Your task to perform on an android device: Open Amazon Image 0: 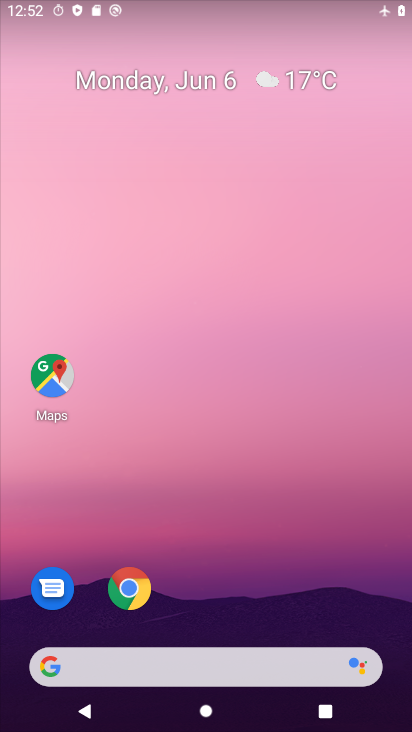
Step 0: click (124, 584)
Your task to perform on an android device: Open Amazon Image 1: 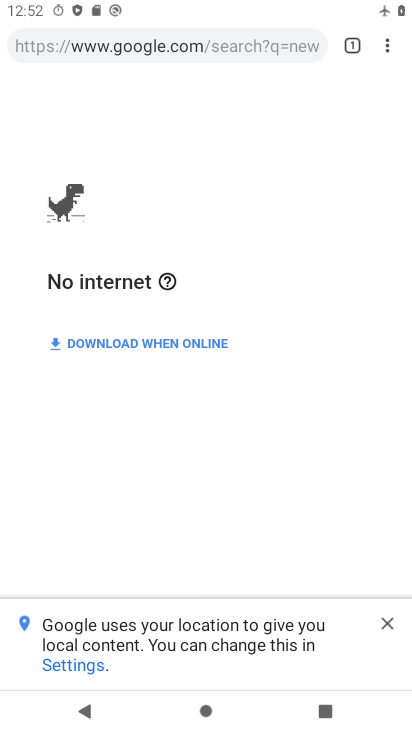
Step 1: click (195, 53)
Your task to perform on an android device: Open Amazon Image 2: 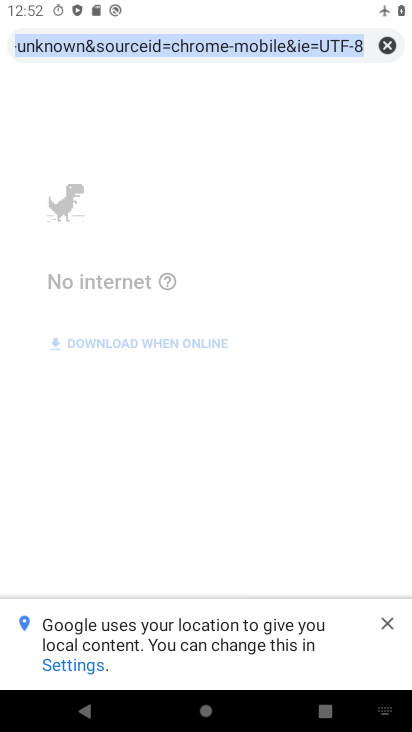
Step 2: type "amazon"
Your task to perform on an android device: Open Amazon Image 3: 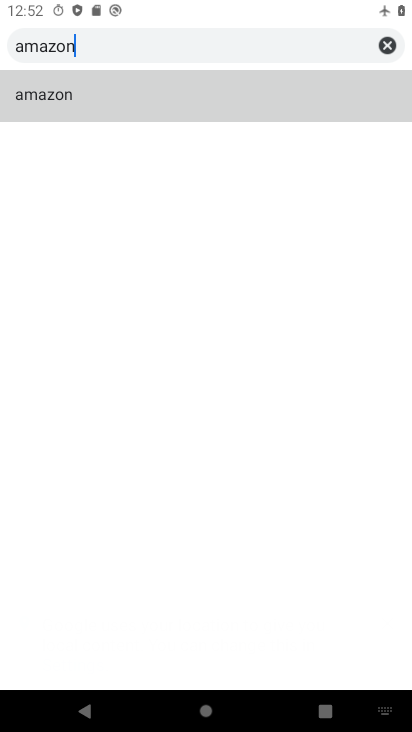
Step 3: click (50, 100)
Your task to perform on an android device: Open Amazon Image 4: 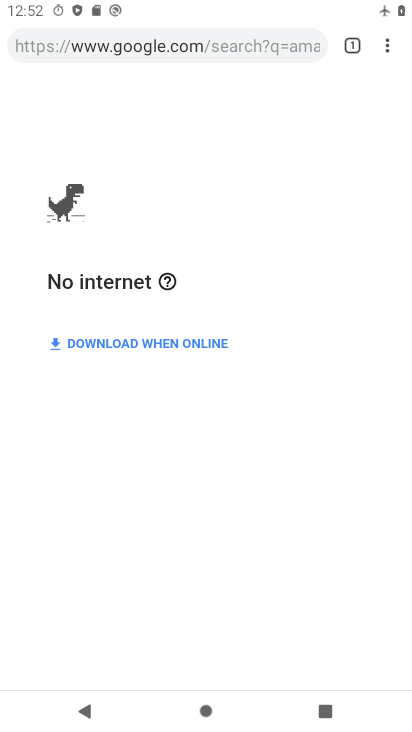
Step 4: task complete